Your task to perform on an android device: delete the emails in spam in the gmail app Image 0: 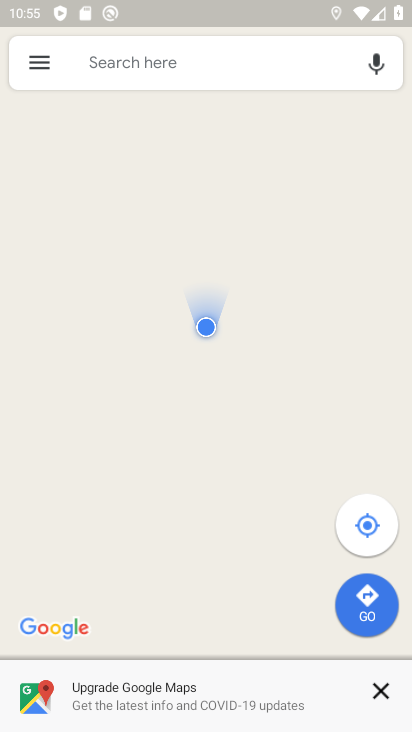
Step 0: press home button
Your task to perform on an android device: delete the emails in spam in the gmail app Image 1: 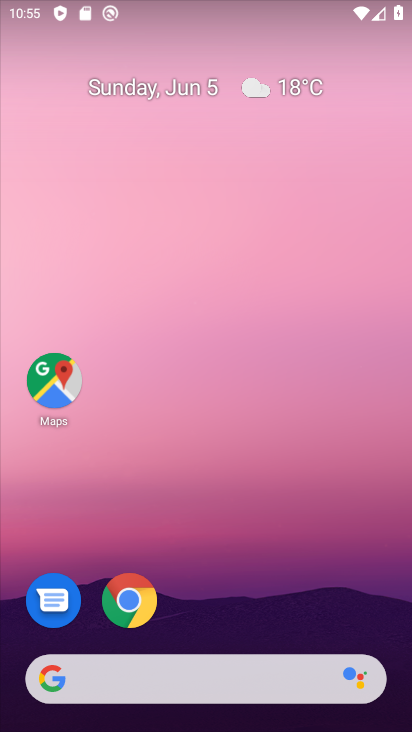
Step 1: drag from (223, 638) to (326, 170)
Your task to perform on an android device: delete the emails in spam in the gmail app Image 2: 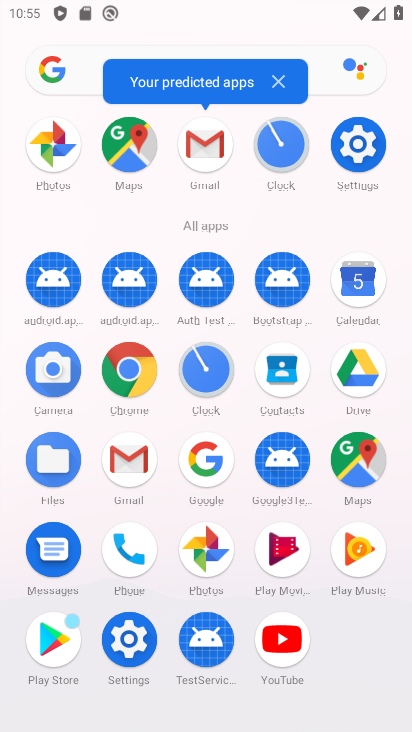
Step 2: click (131, 481)
Your task to perform on an android device: delete the emails in spam in the gmail app Image 3: 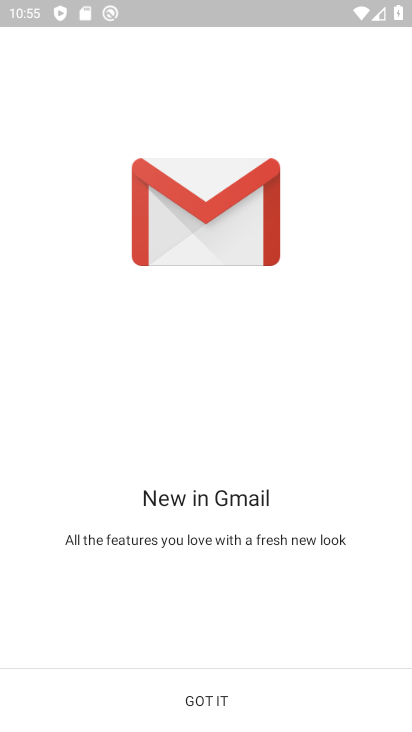
Step 3: click (255, 720)
Your task to perform on an android device: delete the emails in spam in the gmail app Image 4: 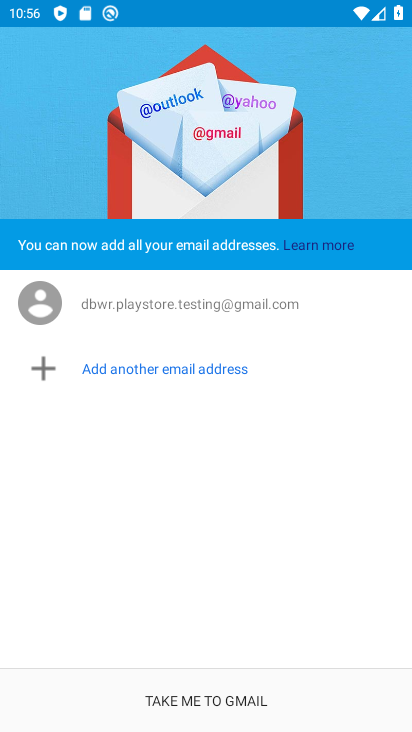
Step 4: click (245, 707)
Your task to perform on an android device: delete the emails in spam in the gmail app Image 5: 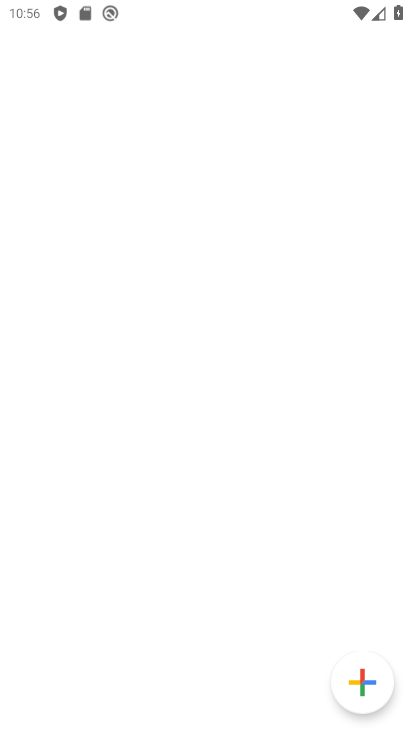
Step 5: click (245, 707)
Your task to perform on an android device: delete the emails in spam in the gmail app Image 6: 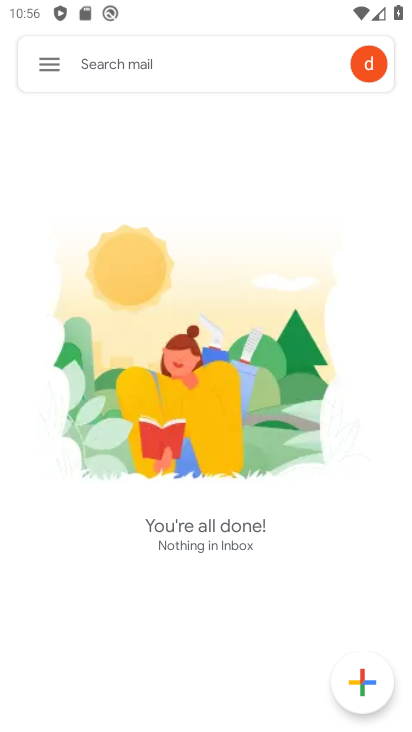
Step 6: click (52, 69)
Your task to perform on an android device: delete the emails in spam in the gmail app Image 7: 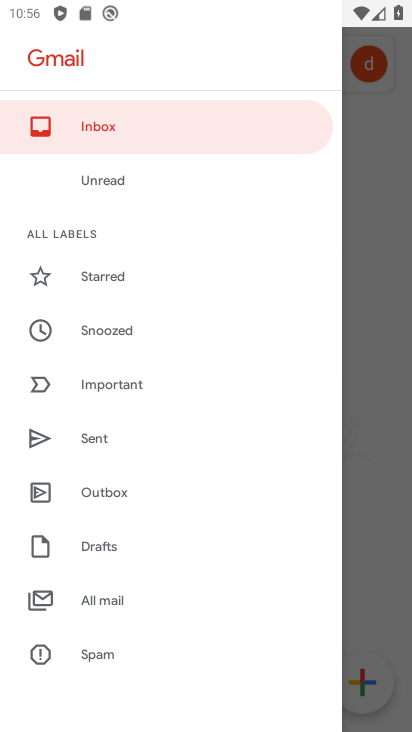
Step 7: click (114, 657)
Your task to perform on an android device: delete the emails in spam in the gmail app Image 8: 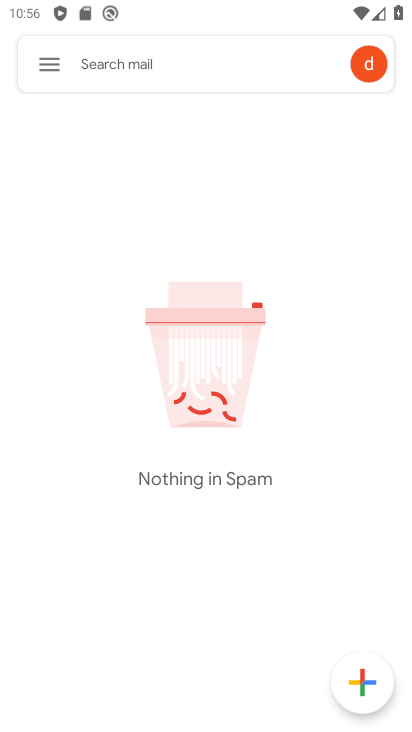
Step 8: click (47, 78)
Your task to perform on an android device: delete the emails in spam in the gmail app Image 9: 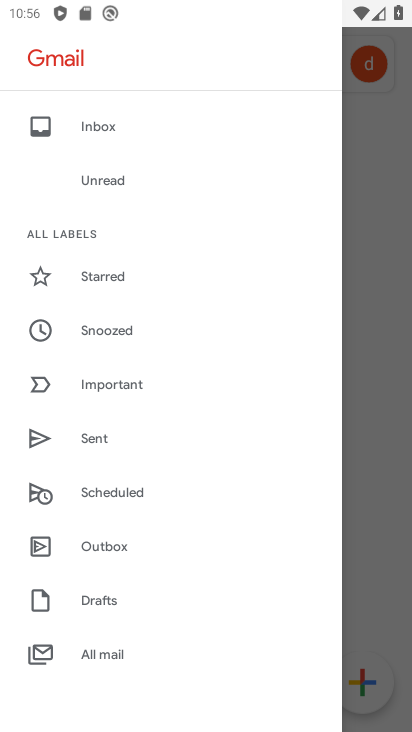
Step 9: drag from (133, 615) to (239, 250)
Your task to perform on an android device: delete the emails in spam in the gmail app Image 10: 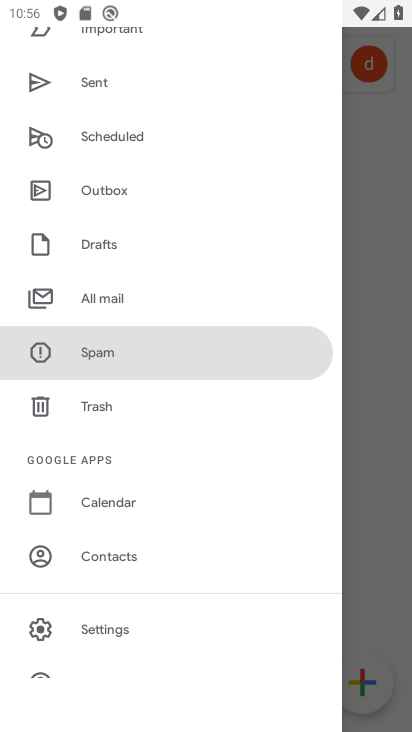
Step 10: click (175, 358)
Your task to perform on an android device: delete the emails in spam in the gmail app Image 11: 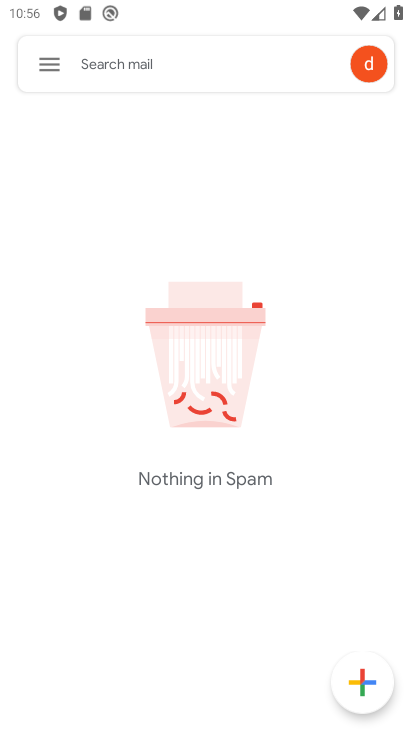
Step 11: task complete